Your task to perform on an android device: Go to notification settings Image 0: 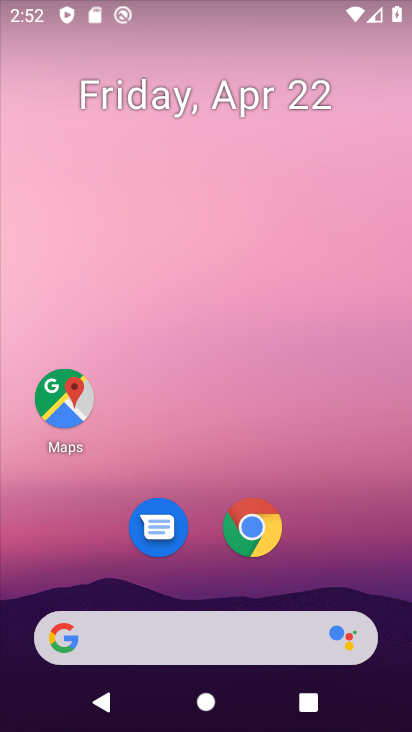
Step 0: drag from (353, 443) to (235, 10)
Your task to perform on an android device: Go to notification settings Image 1: 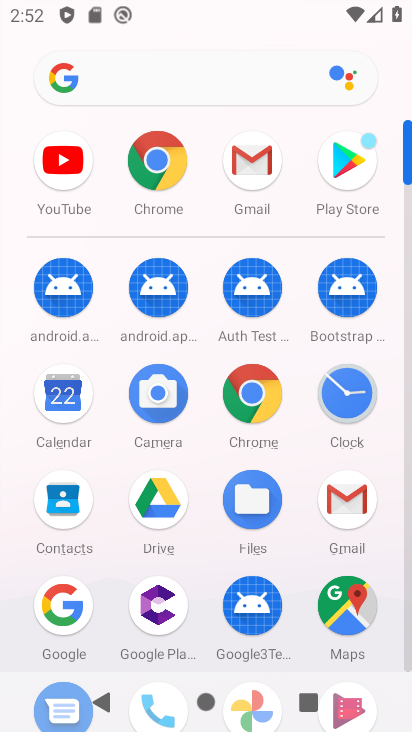
Step 1: click (409, 667)
Your task to perform on an android device: Go to notification settings Image 2: 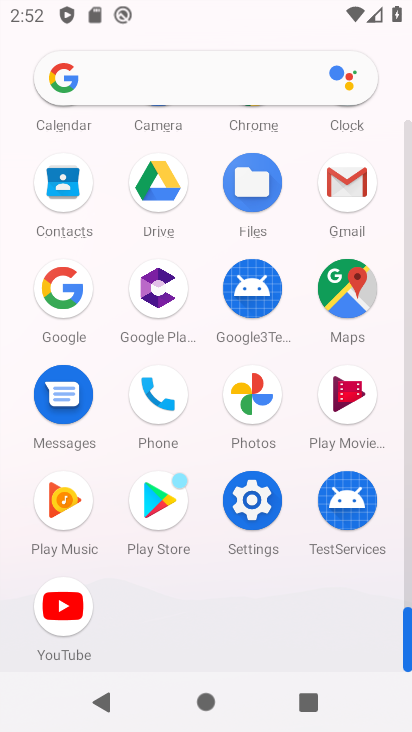
Step 2: click (250, 508)
Your task to perform on an android device: Go to notification settings Image 3: 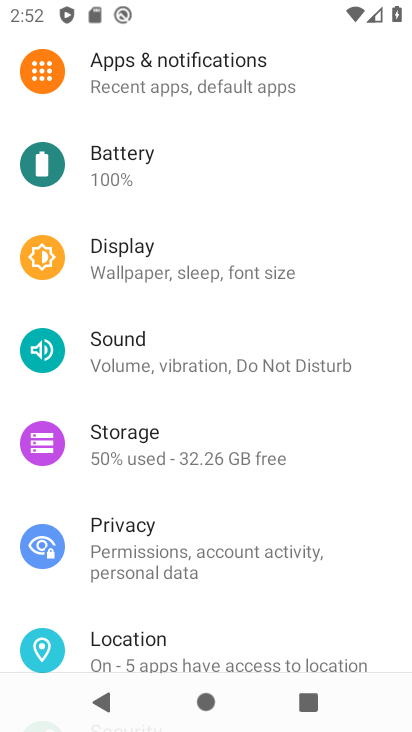
Step 3: click (150, 98)
Your task to perform on an android device: Go to notification settings Image 4: 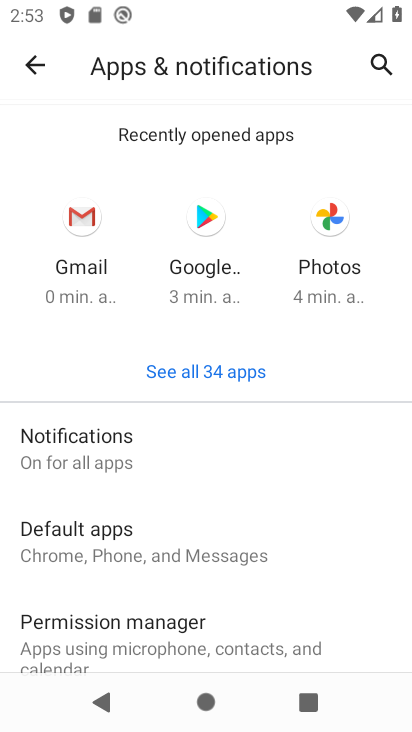
Step 4: click (160, 463)
Your task to perform on an android device: Go to notification settings Image 5: 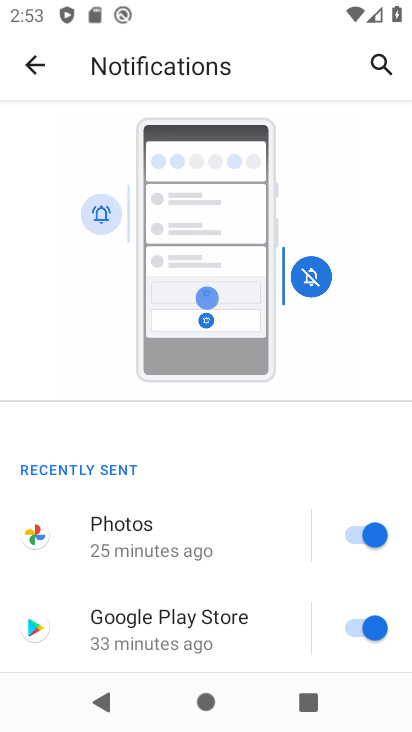
Step 5: task complete